Your task to perform on an android device: uninstall "Move to iOS" Image 0: 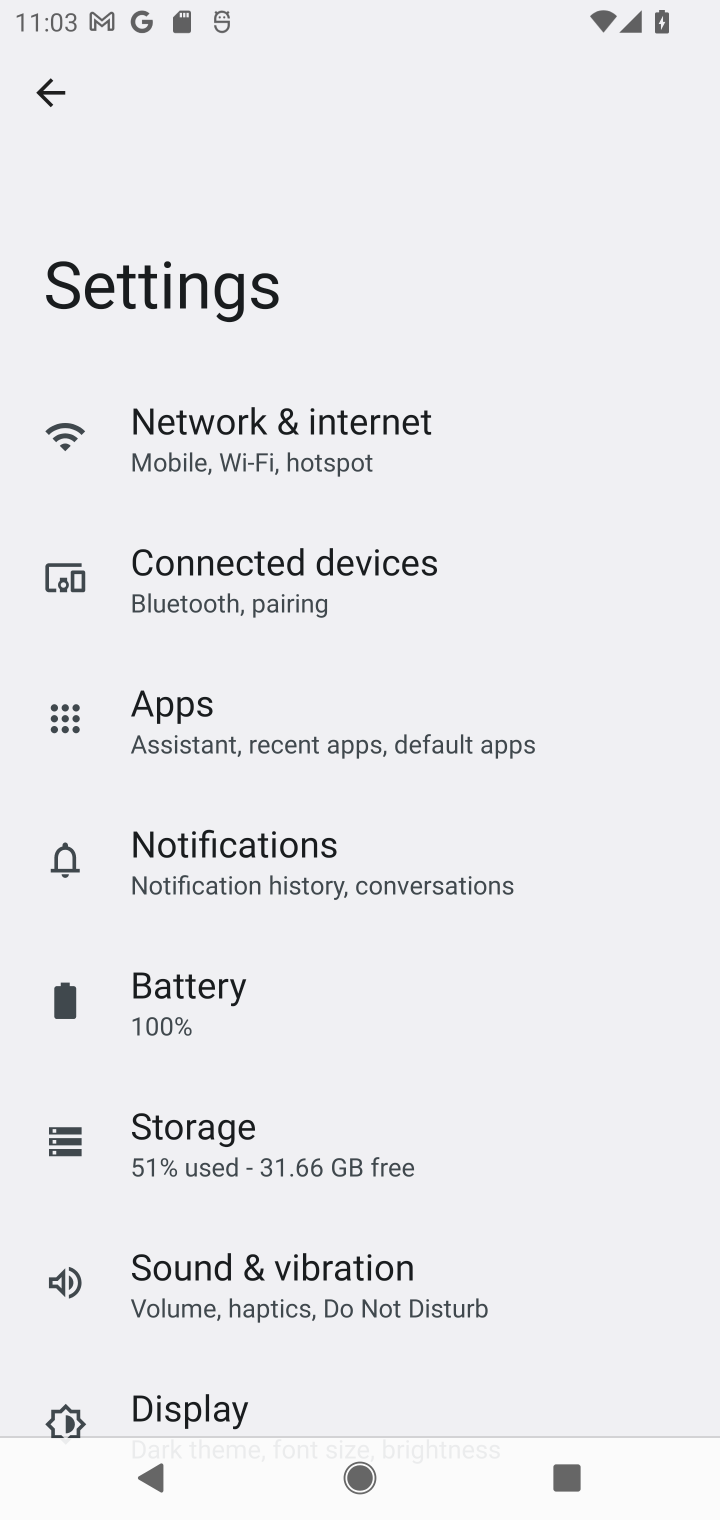
Step 0: press home button
Your task to perform on an android device: uninstall "Move to iOS" Image 1: 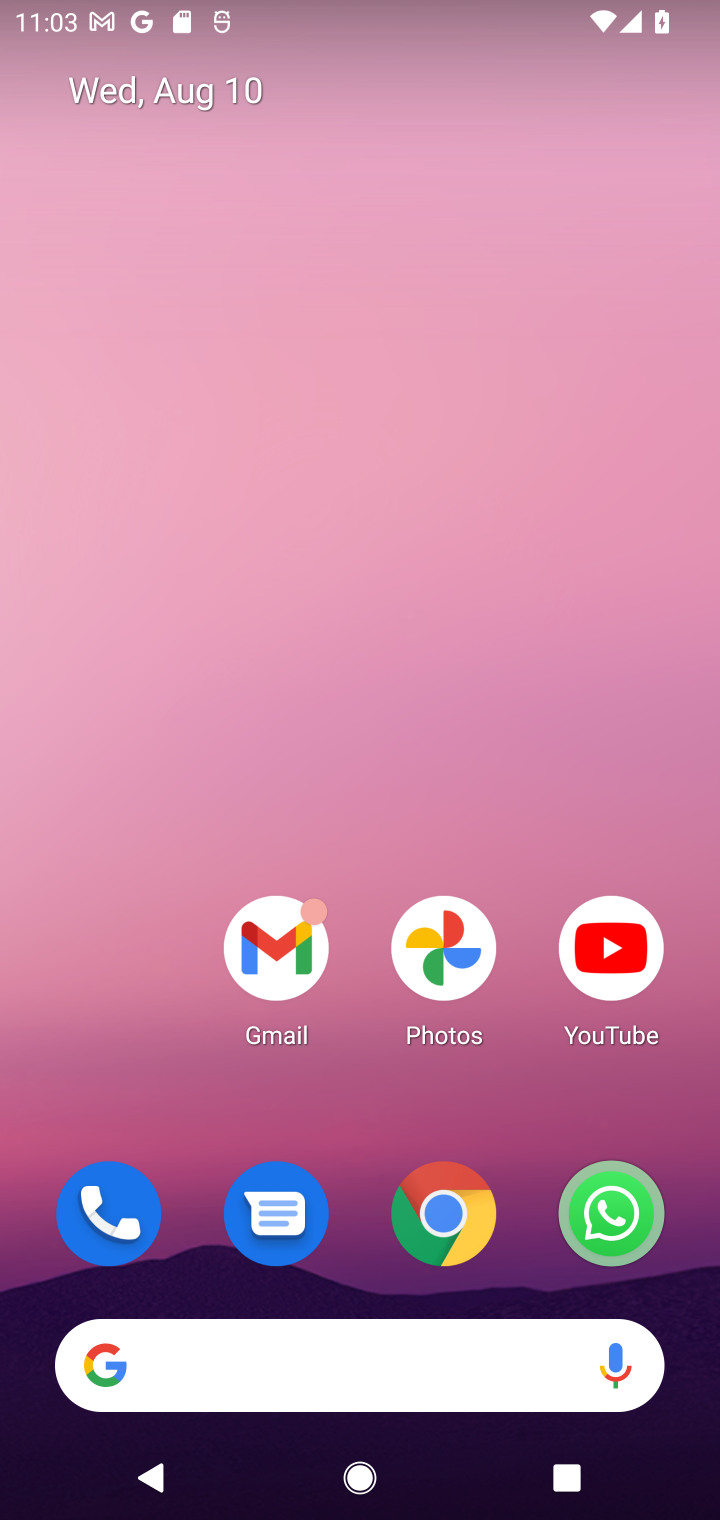
Step 1: drag from (346, 1338) to (370, 429)
Your task to perform on an android device: uninstall "Move to iOS" Image 2: 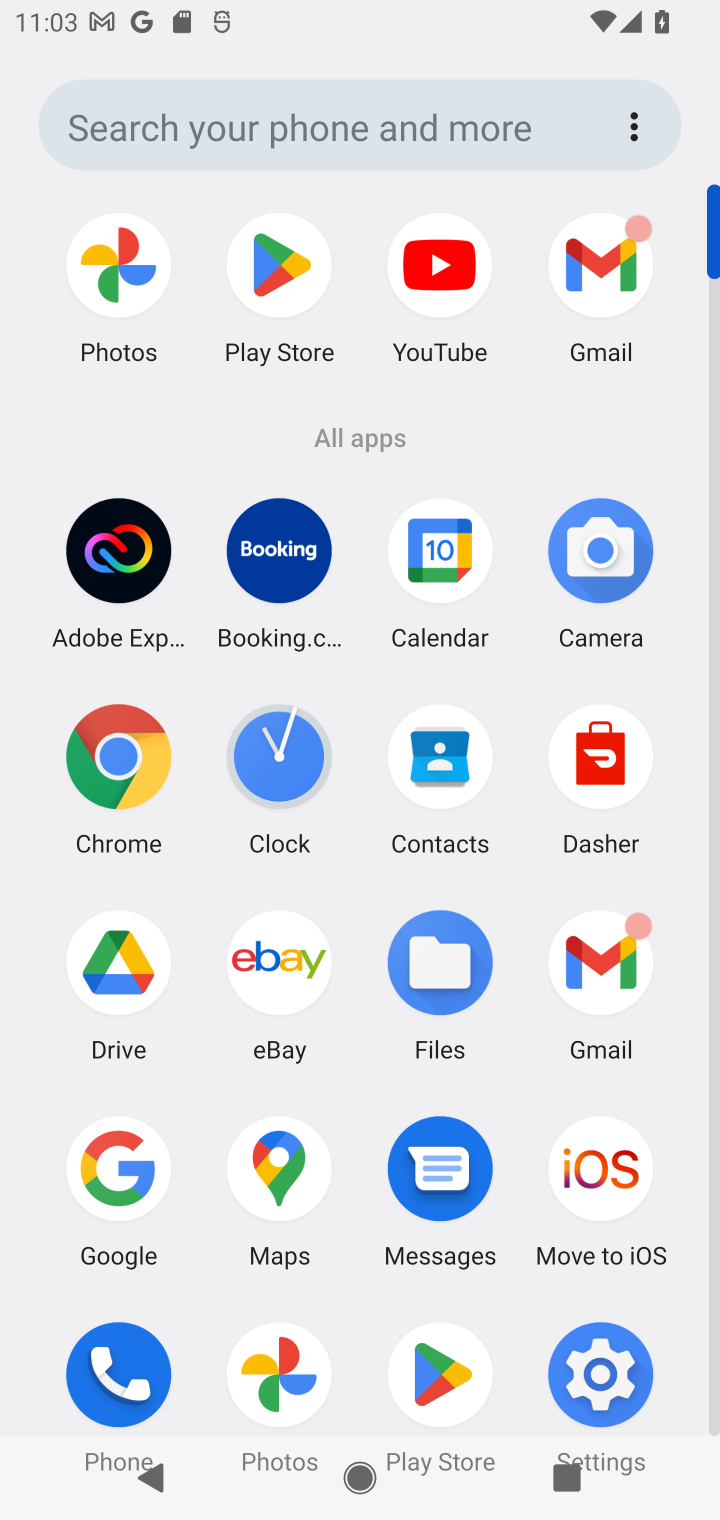
Step 2: click (282, 270)
Your task to perform on an android device: uninstall "Move to iOS" Image 3: 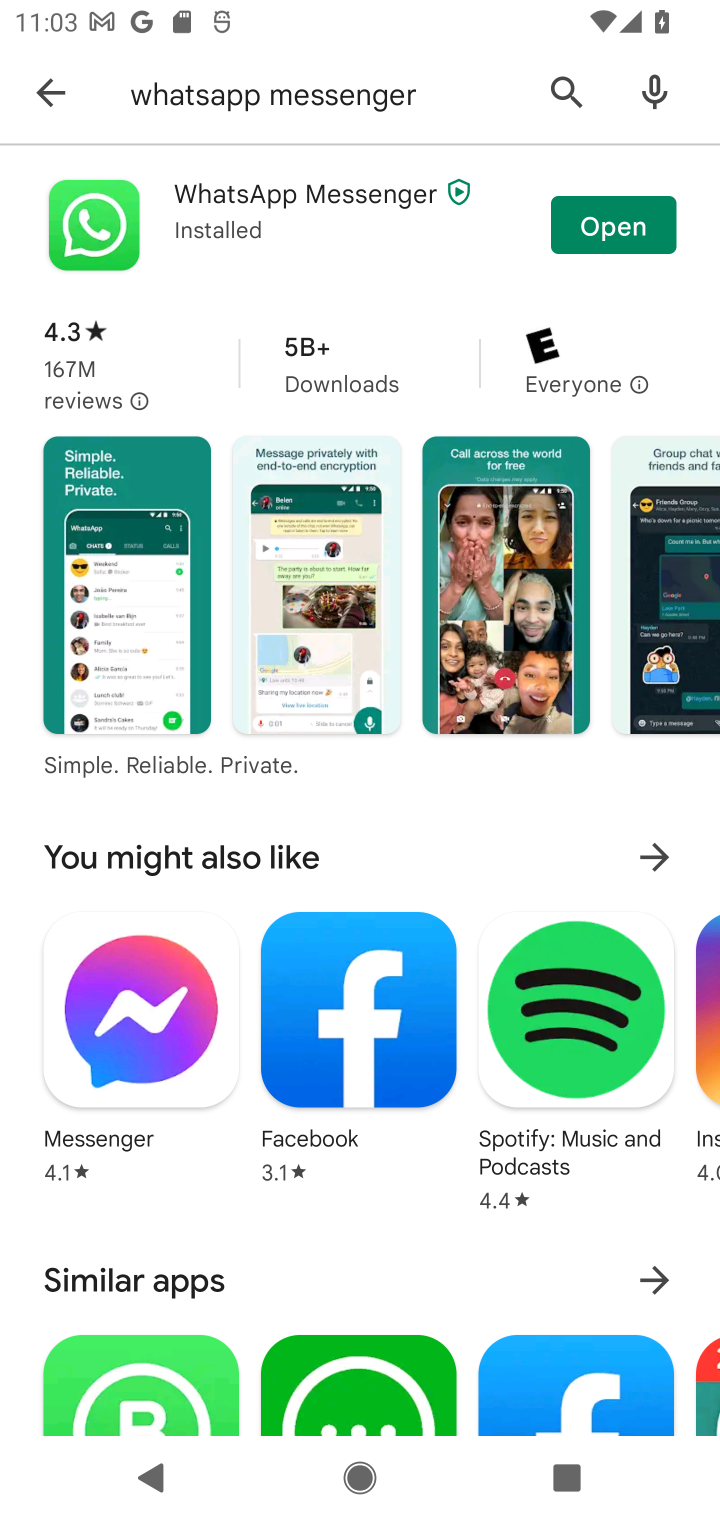
Step 3: press back button
Your task to perform on an android device: uninstall "Move to iOS" Image 4: 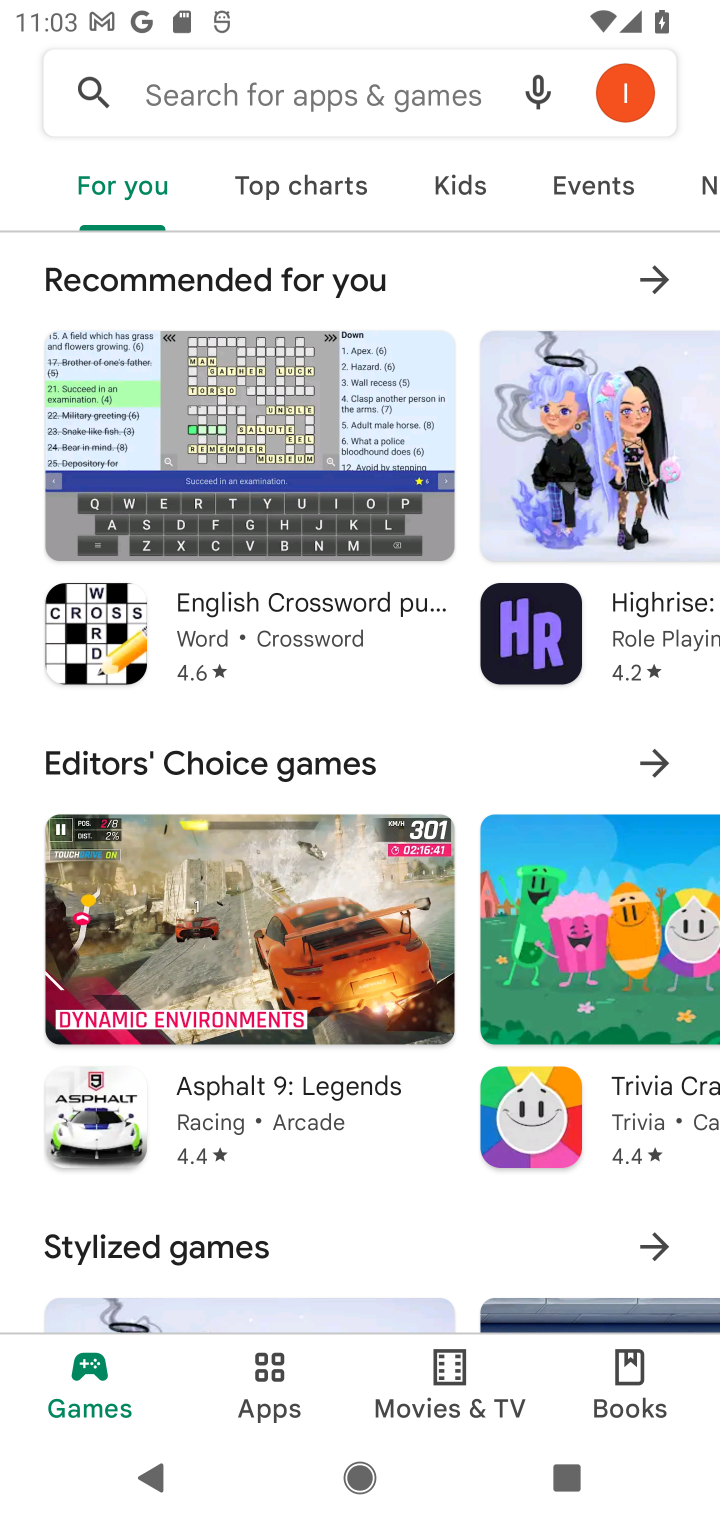
Step 4: click (413, 94)
Your task to perform on an android device: uninstall "Move to iOS" Image 5: 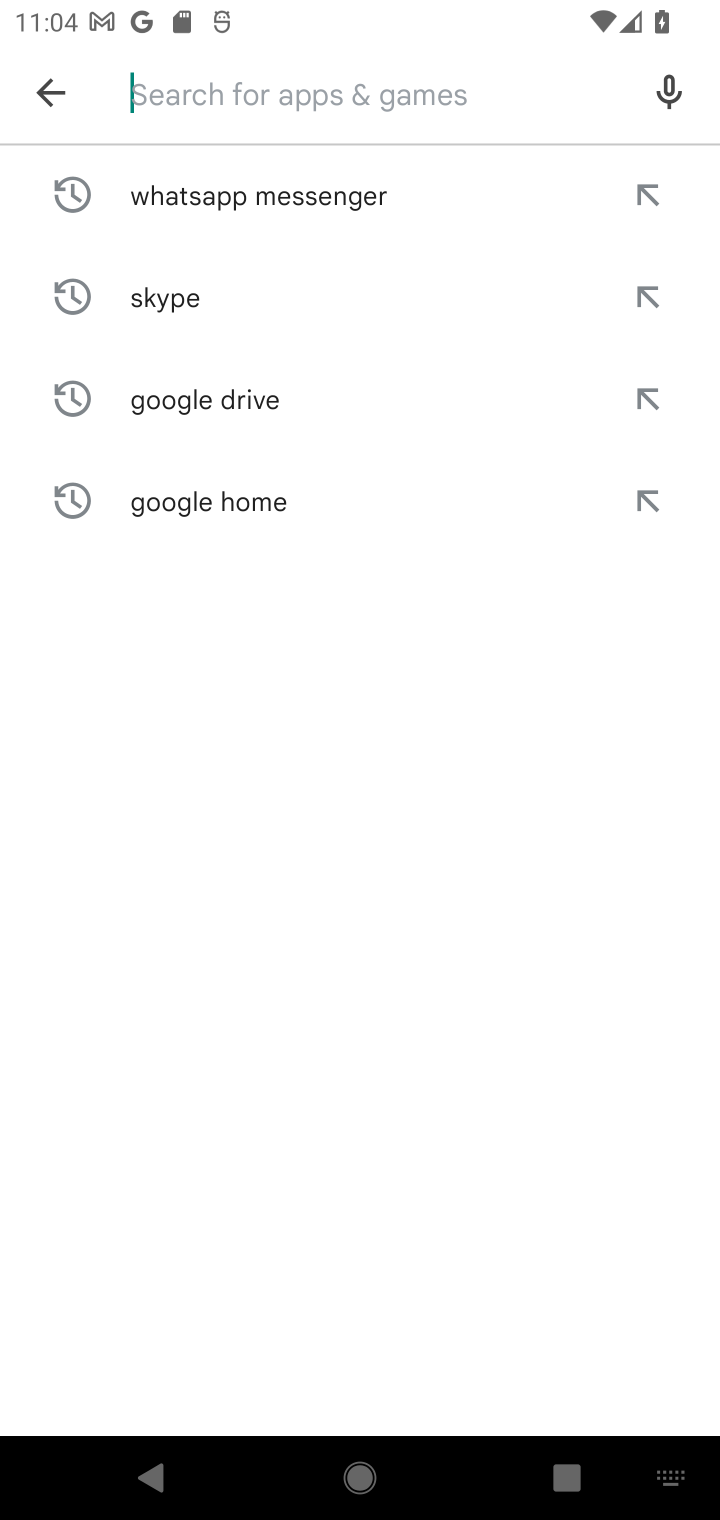
Step 5: type "Move to iOS"
Your task to perform on an android device: uninstall "Move to iOS" Image 6: 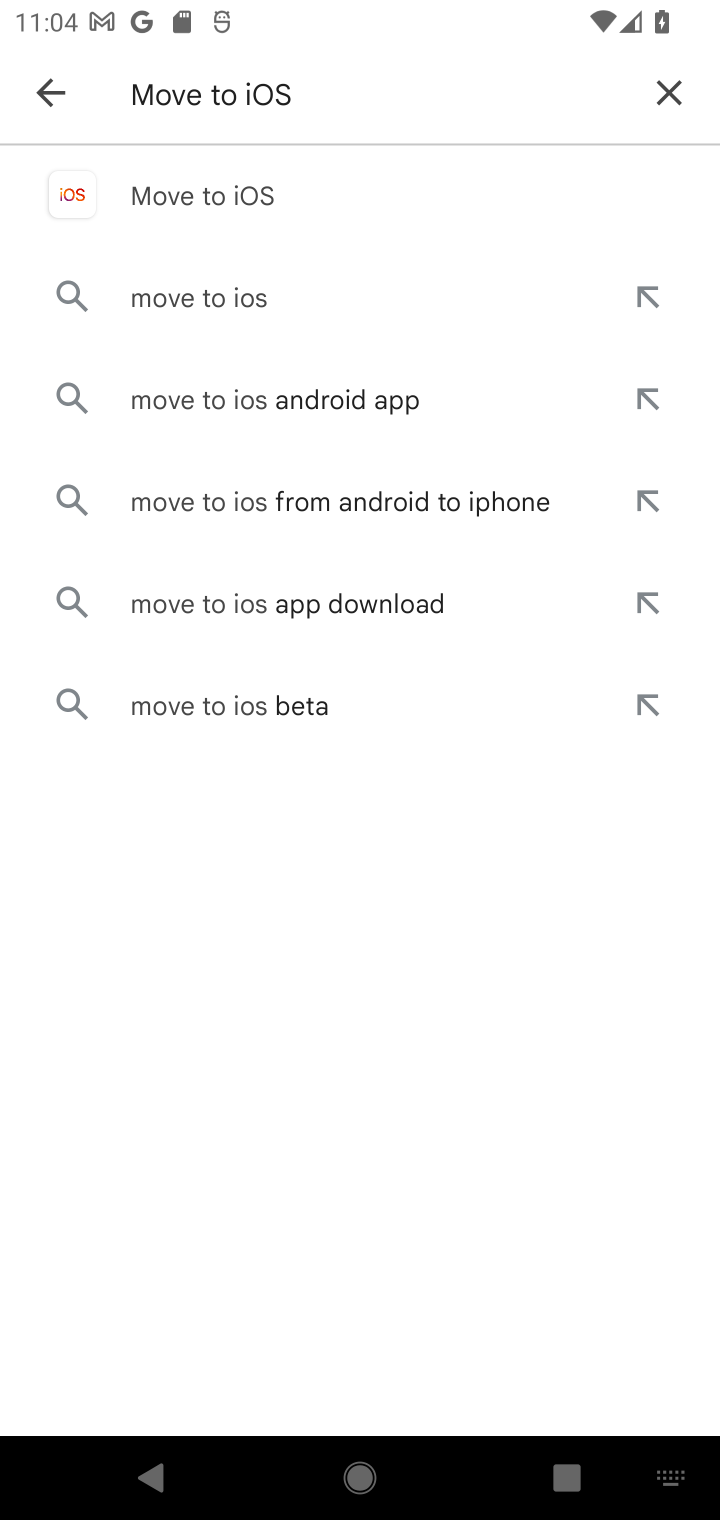
Step 6: click (239, 195)
Your task to perform on an android device: uninstall "Move to iOS" Image 7: 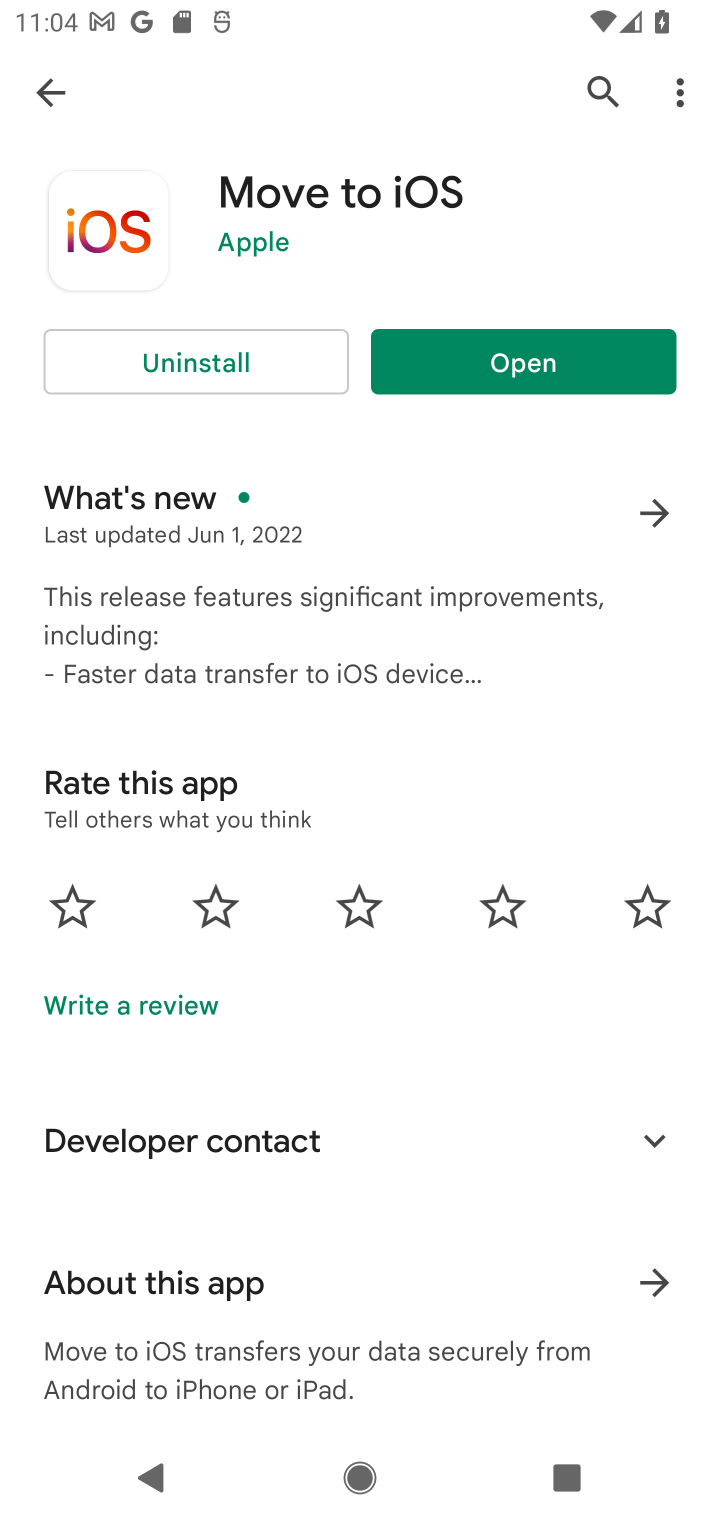
Step 7: click (217, 369)
Your task to perform on an android device: uninstall "Move to iOS" Image 8: 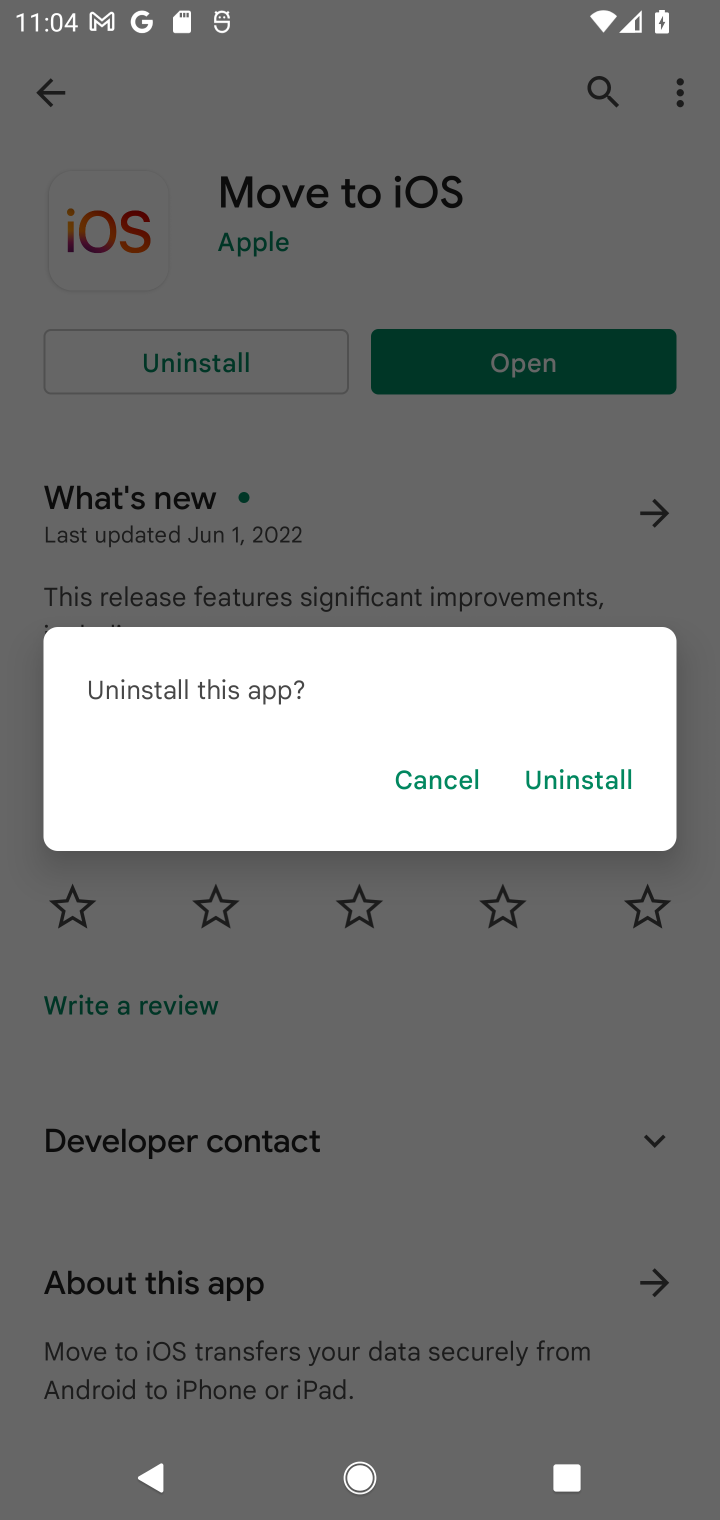
Step 8: click (601, 772)
Your task to perform on an android device: uninstall "Move to iOS" Image 9: 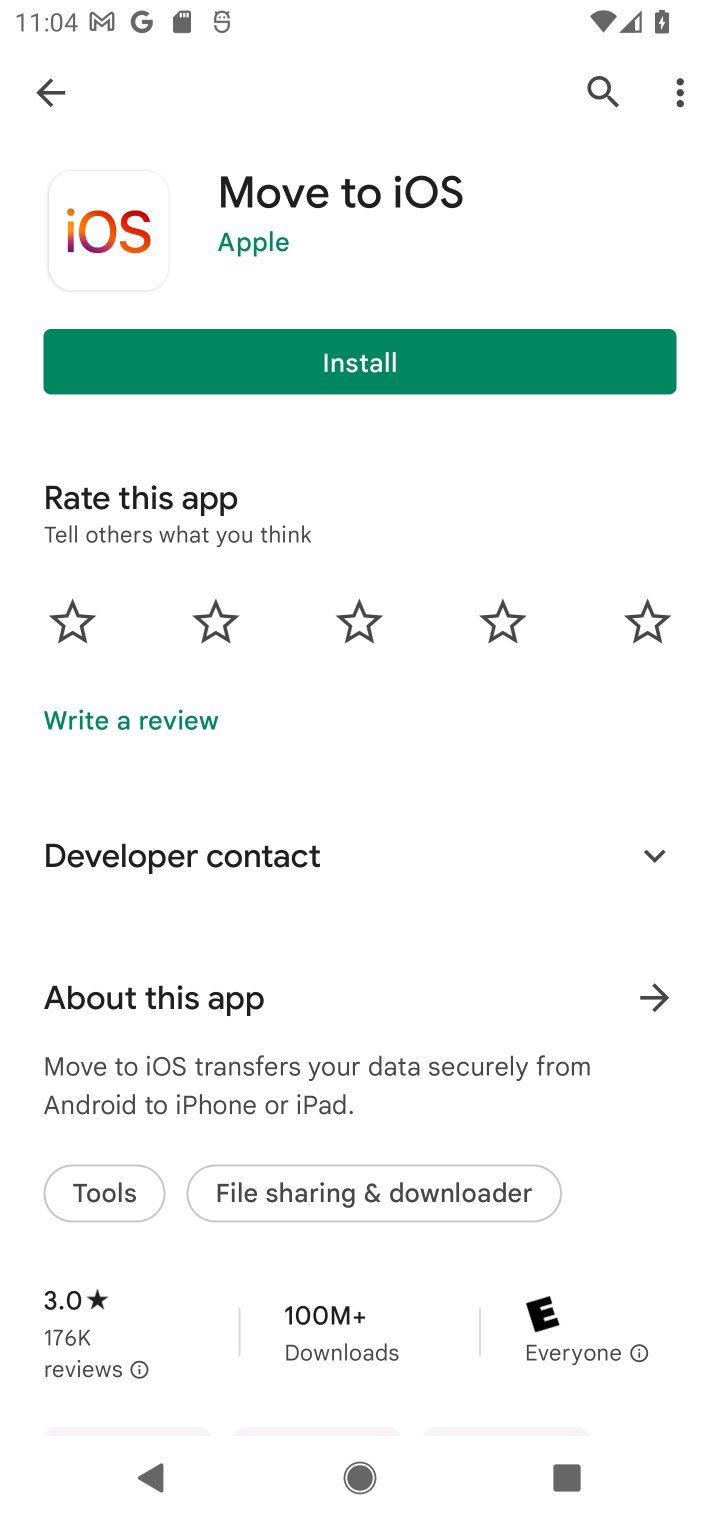
Step 9: task complete